Your task to perform on an android device: turn off javascript in the chrome app Image 0: 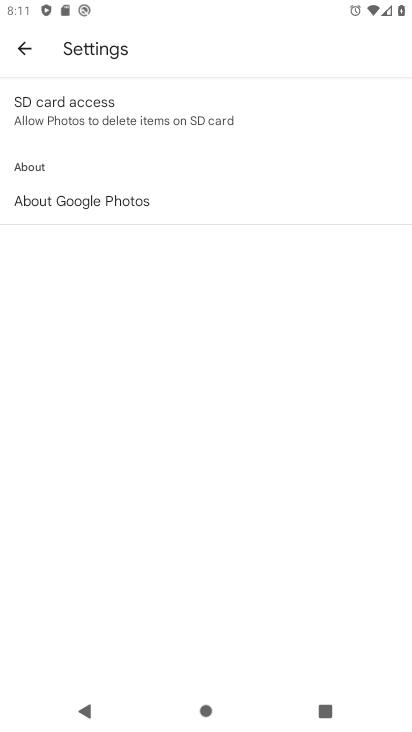
Step 0: press back button
Your task to perform on an android device: turn off javascript in the chrome app Image 1: 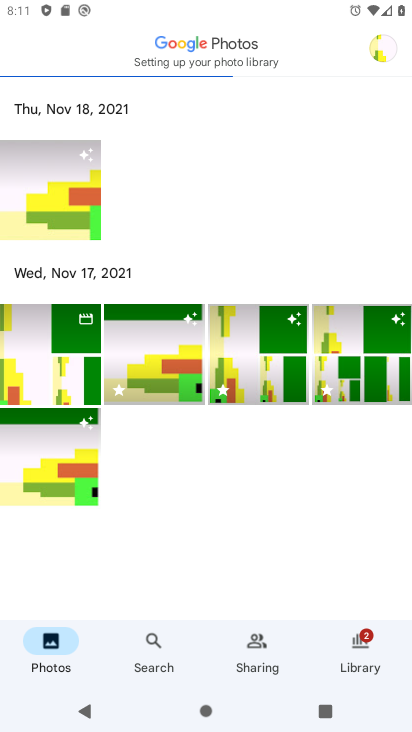
Step 1: press home button
Your task to perform on an android device: turn off javascript in the chrome app Image 2: 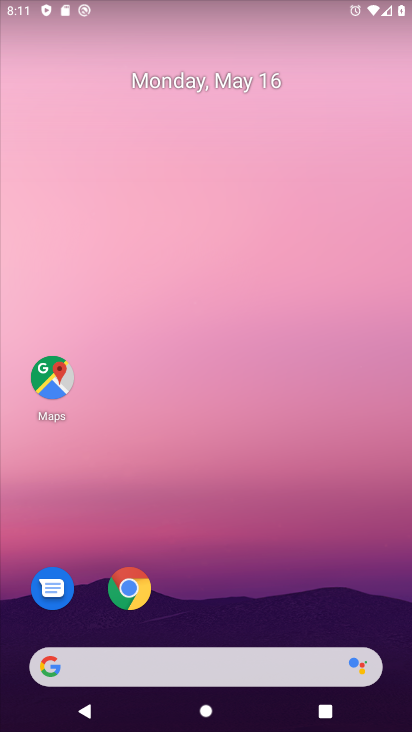
Step 2: drag from (252, 516) to (196, 21)
Your task to perform on an android device: turn off javascript in the chrome app Image 3: 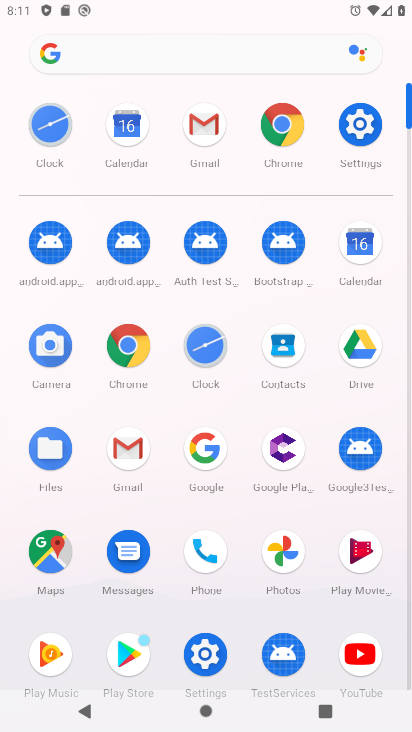
Step 3: click (280, 140)
Your task to perform on an android device: turn off javascript in the chrome app Image 4: 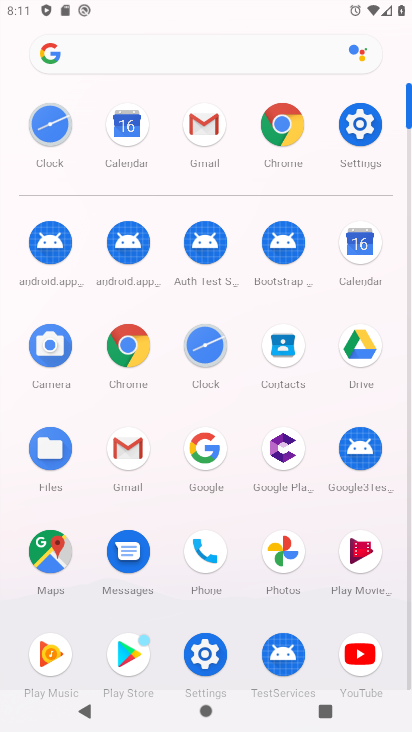
Step 4: click (280, 140)
Your task to perform on an android device: turn off javascript in the chrome app Image 5: 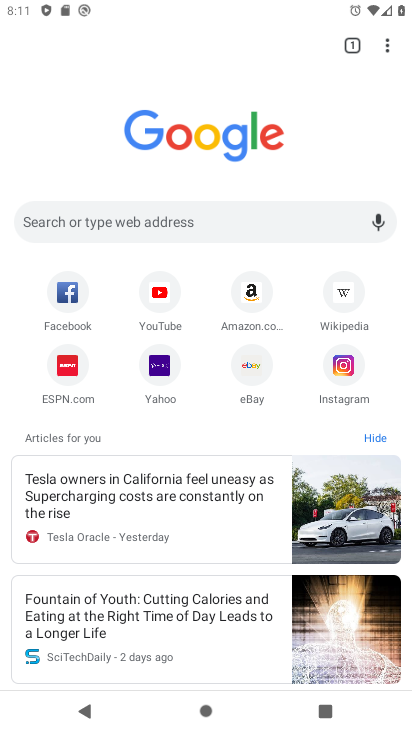
Step 5: click (382, 40)
Your task to perform on an android device: turn off javascript in the chrome app Image 6: 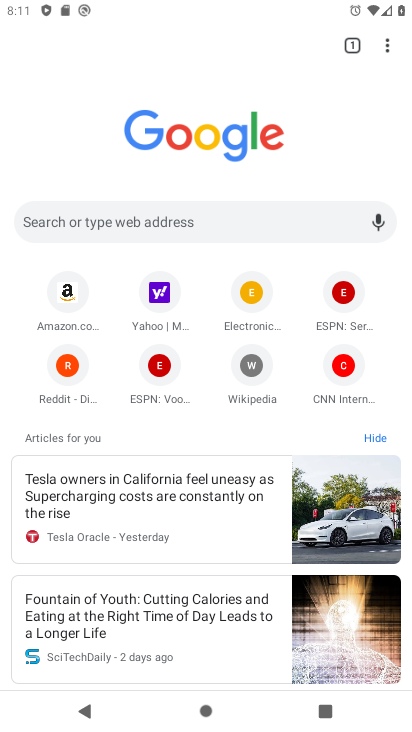
Step 6: click (383, 58)
Your task to perform on an android device: turn off javascript in the chrome app Image 7: 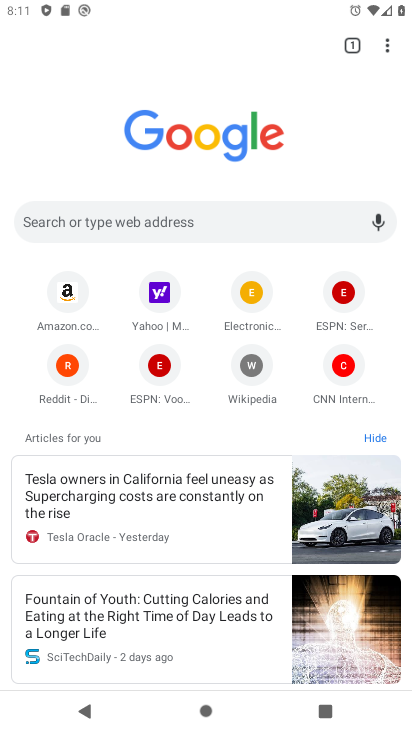
Step 7: drag from (381, 41) to (232, 384)
Your task to perform on an android device: turn off javascript in the chrome app Image 8: 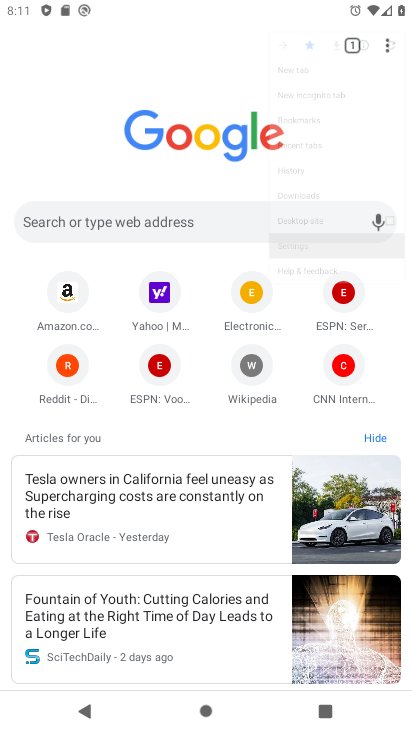
Step 8: click (231, 384)
Your task to perform on an android device: turn off javascript in the chrome app Image 9: 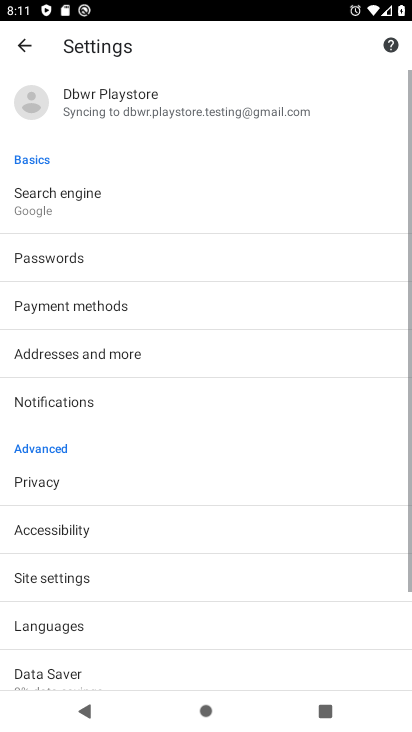
Step 9: click (143, 146)
Your task to perform on an android device: turn off javascript in the chrome app Image 10: 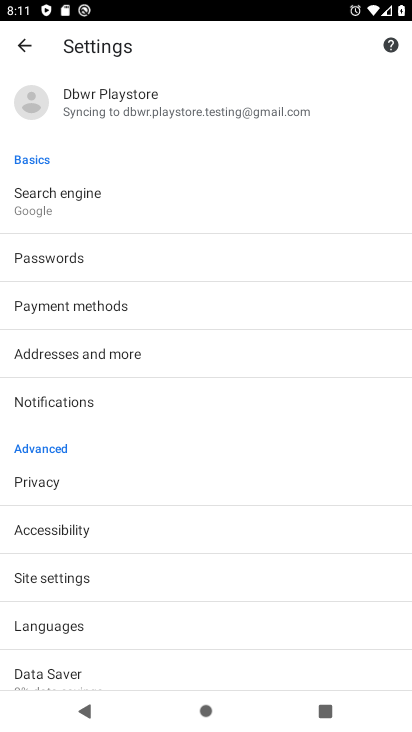
Step 10: drag from (162, 459) to (178, 3)
Your task to perform on an android device: turn off javascript in the chrome app Image 11: 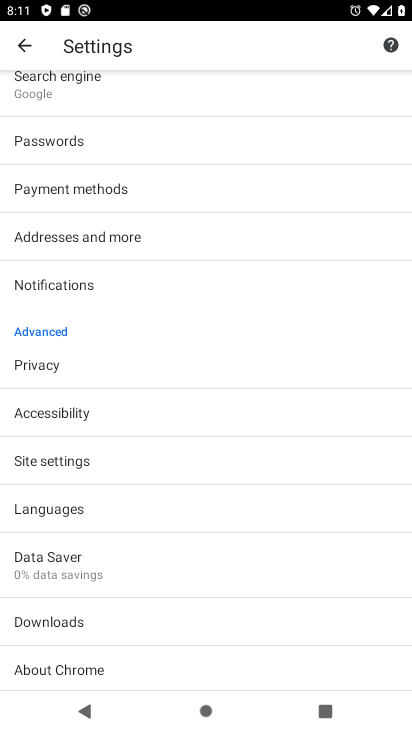
Step 11: click (48, 459)
Your task to perform on an android device: turn off javascript in the chrome app Image 12: 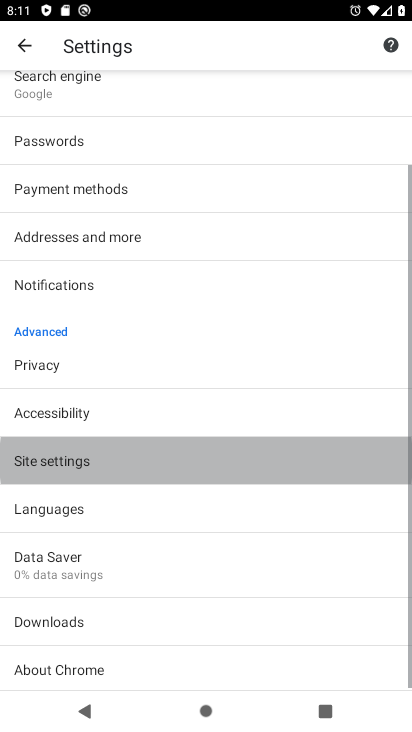
Step 12: click (48, 458)
Your task to perform on an android device: turn off javascript in the chrome app Image 13: 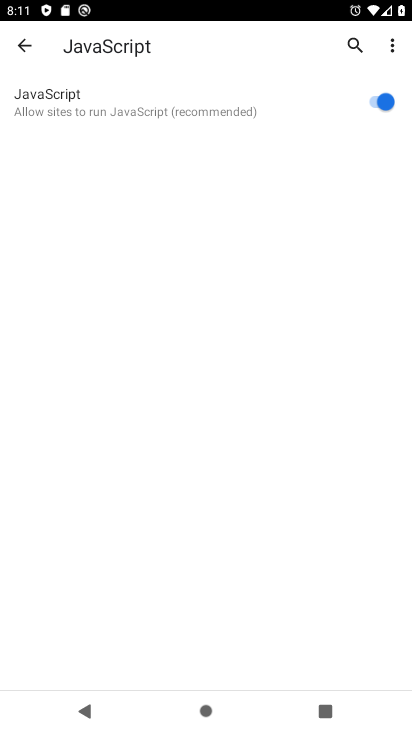
Step 13: click (383, 92)
Your task to perform on an android device: turn off javascript in the chrome app Image 14: 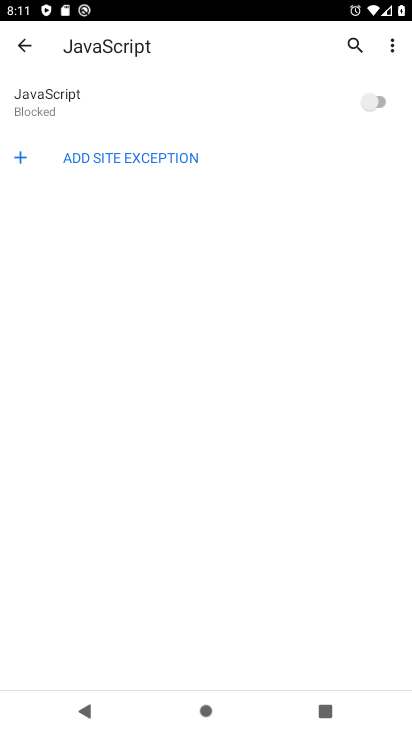
Step 14: task complete